Your task to perform on an android device: When is my next appointment? Image 0: 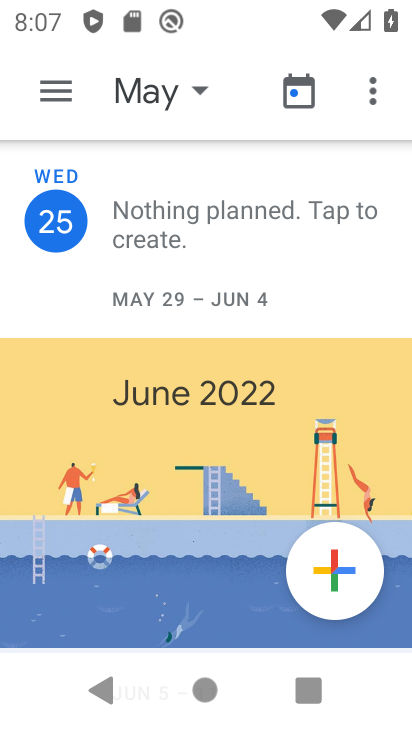
Step 0: press home button
Your task to perform on an android device: When is my next appointment? Image 1: 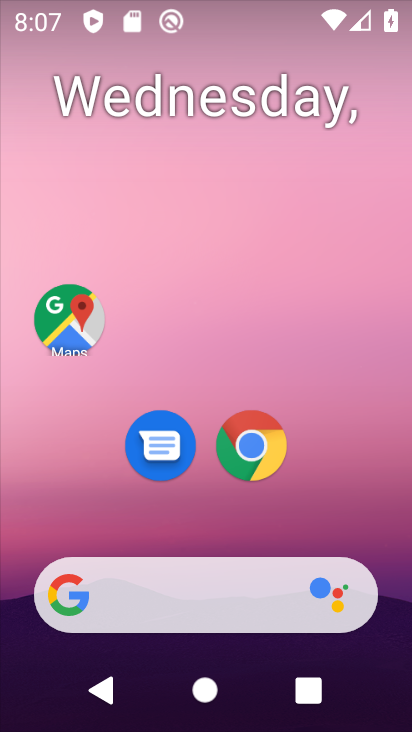
Step 1: drag from (204, 713) to (199, 9)
Your task to perform on an android device: When is my next appointment? Image 2: 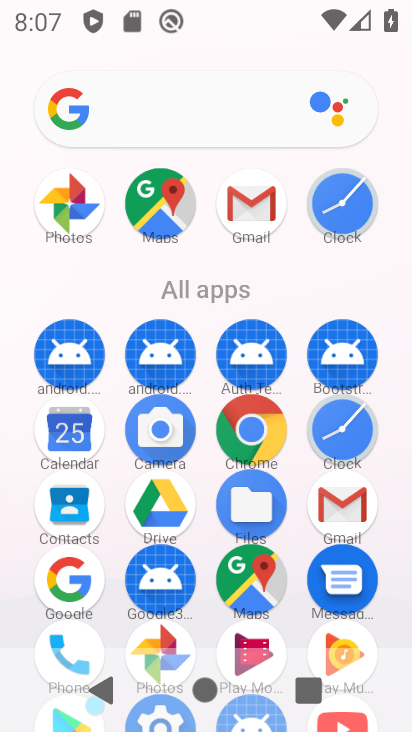
Step 2: click (59, 437)
Your task to perform on an android device: When is my next appointment? Image 3: 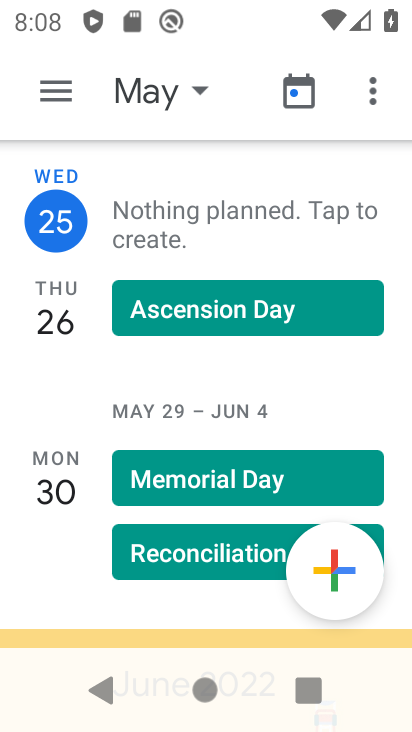
Step 3: click (191, 87)
Your task to perform on an android device: When is my next appointment? Image 4: 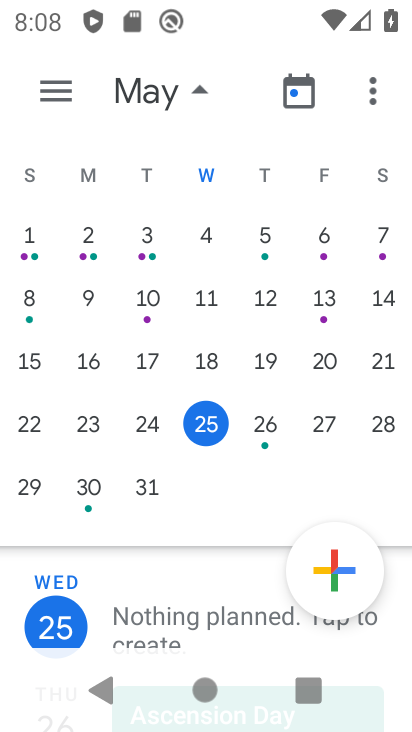
Step 4: click (272, 416)
Your task to perform on an android device: When is my next appointment? Image 5: 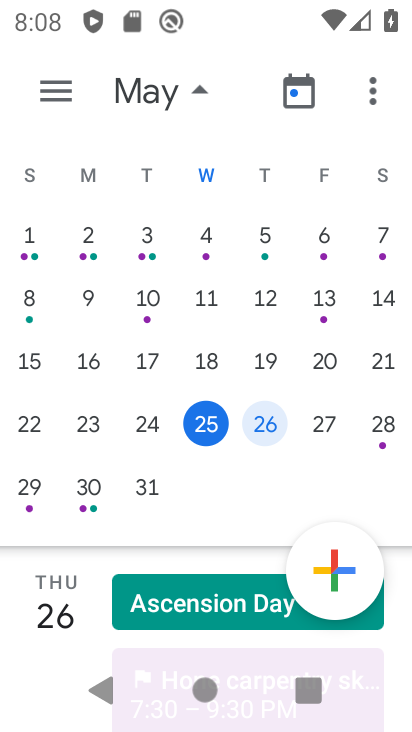
Step 5: click (265, 419)
Your task to perform on an android device: When is my next appointment? Image 6: 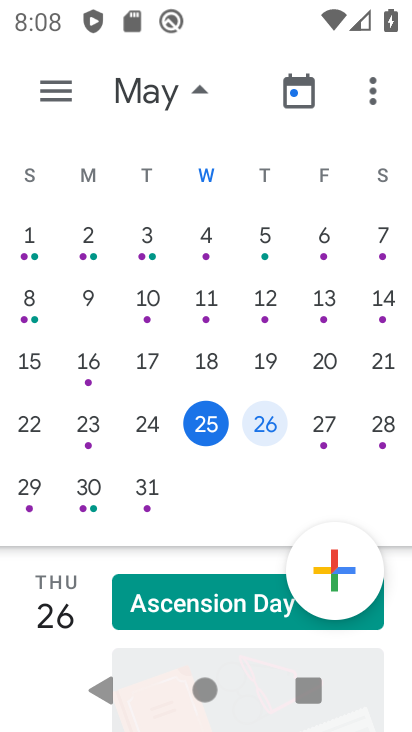
Step 6: click (194, 89)
Your task to perform on an android device: When is my next appointment? Image 7: 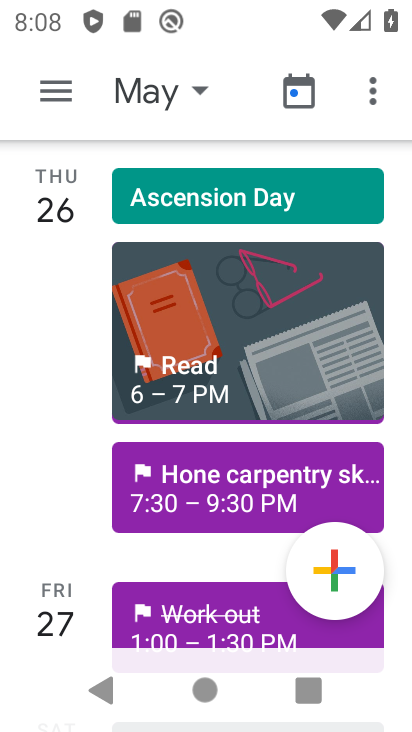
Step 7: task complete